Your task to perform on an android device: turn on javascript in the chrome app Image 0: 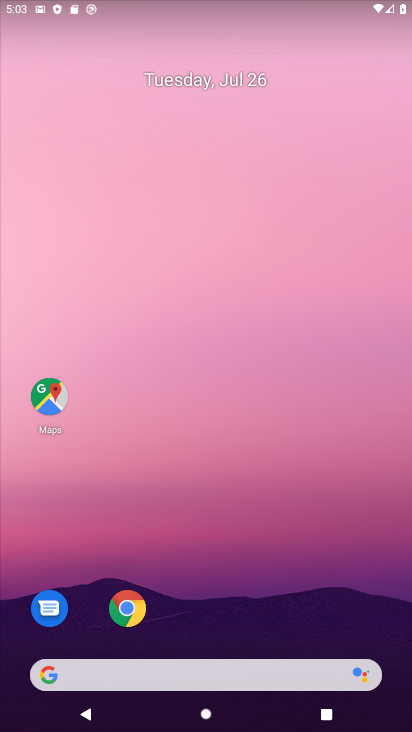
Step 0: press home button
Your task to perform on an android device: turn on javascript in the chrome app Image 1: 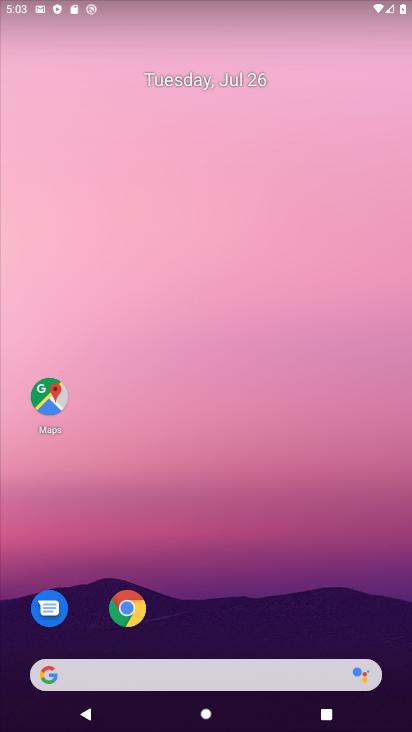
Step 1: drag from (225, 622) to (281, 152)
Your task to perform on an android device: turn on javascript in the chrome app Image 2: 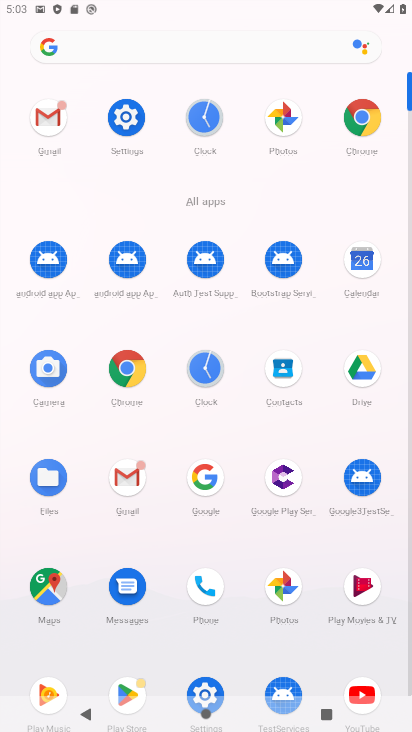
Step 2: click (368, 127)
Your task to perform on an android device: turn on javascript in the chrome app Image 3: 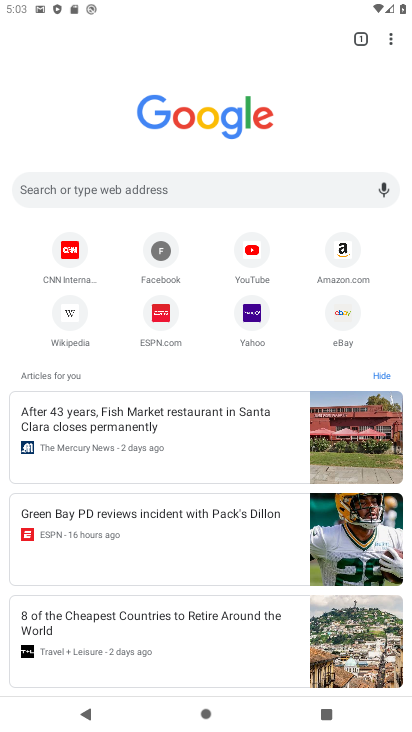
Step 3: drag from (393, 34) to (253, 322)
Your task to perform on an android device: turn on javascript in the chrome app Image 4: 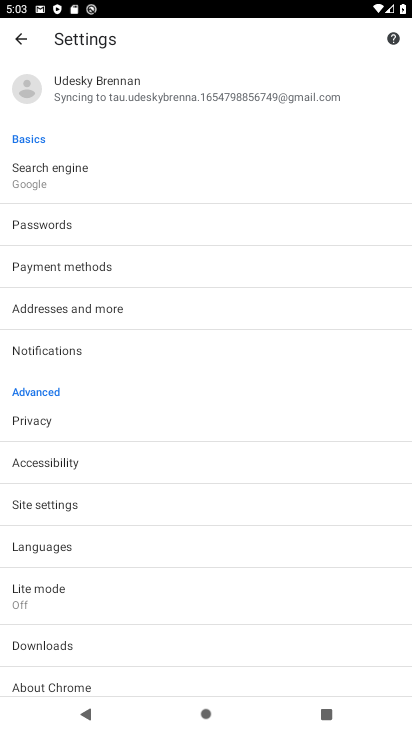
Step 4: click (42, 508)
Your task to perform on an android device: turn on javascript in the chrome app Image 5: 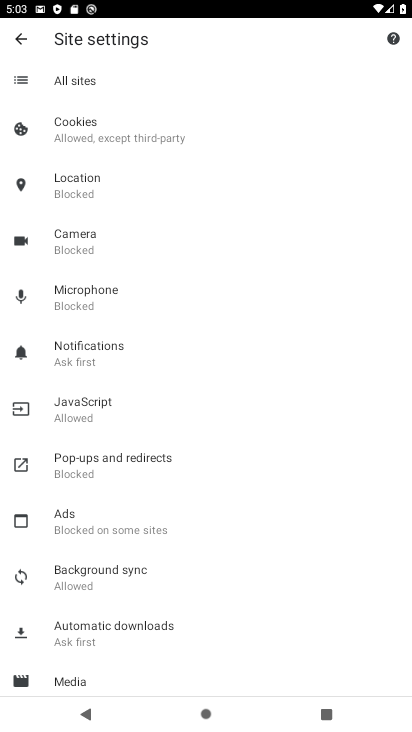
Step 5: click (100, 401)
Your task to perform on an android device: turn on javascript in the chrome app Image 6: 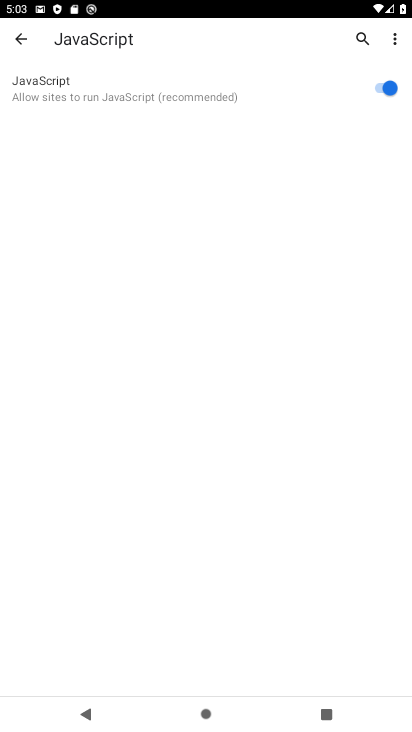
Step 6: task complete